Your task to perform on an android device: Open Youtube and go to "Your channel" Image 0: 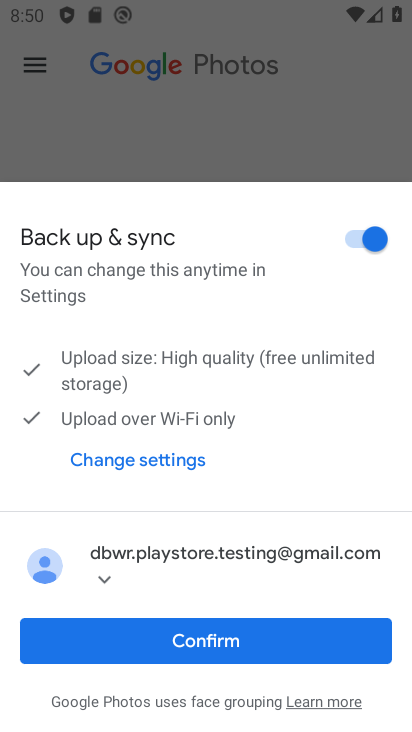
Step 0: press back button
Your task to perform on an android device: Open Youtube and go to "Your channel" Image 1: 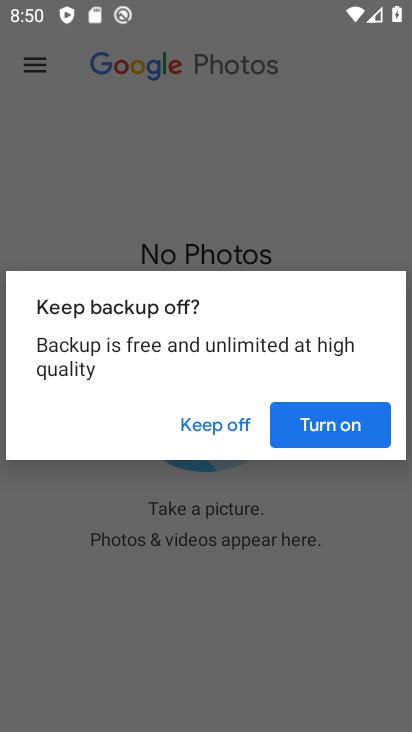
Step 1: press home button
Your task to perform on an android device: Open Youtube and go to "Your channel" Image 2: 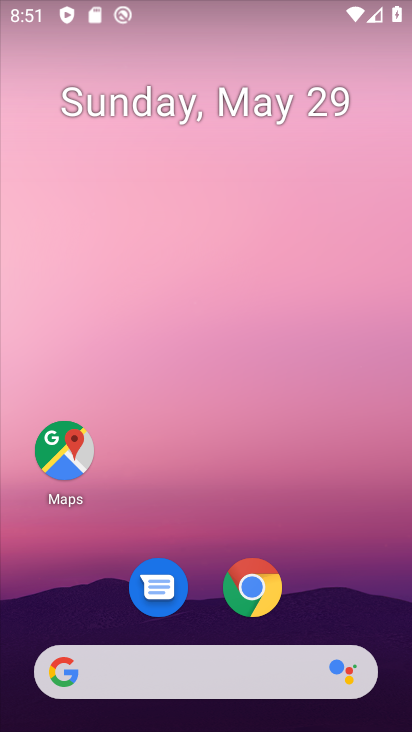
Step 2: drag from (226, 600) to (318, 21)
Your task to perform on an android device: Open Youtube and go to "Your channel" Image 3: 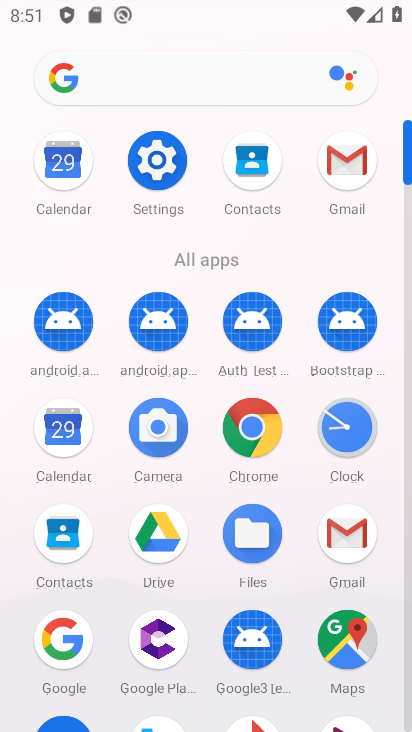
Step 3: drag from (230, 633) to (310, 52)
Your task to perform on an android device: Open Youtube and go to "Your channel" Image 4: 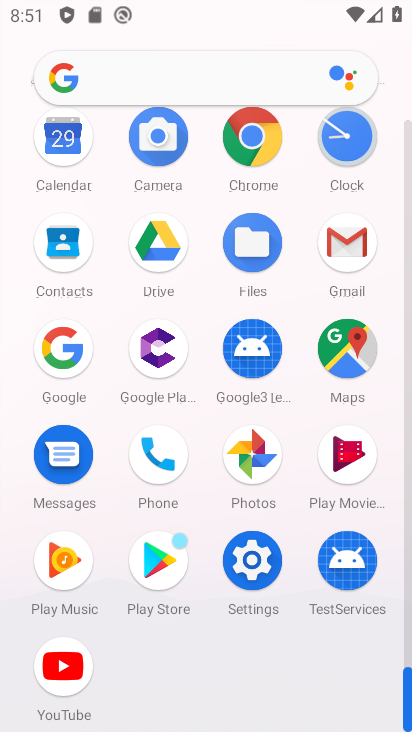
Step 4: click (74, 668)
Your task to perform on an android device: Open Youtube and go to "Your channel" Image 5: 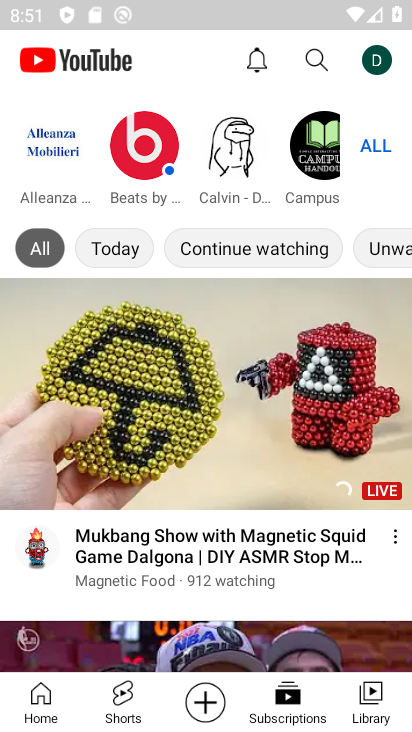
Step 5: click (384, 60)
Your task to perform on an android device: Open Youtube and go to "Your channel" Image 6: 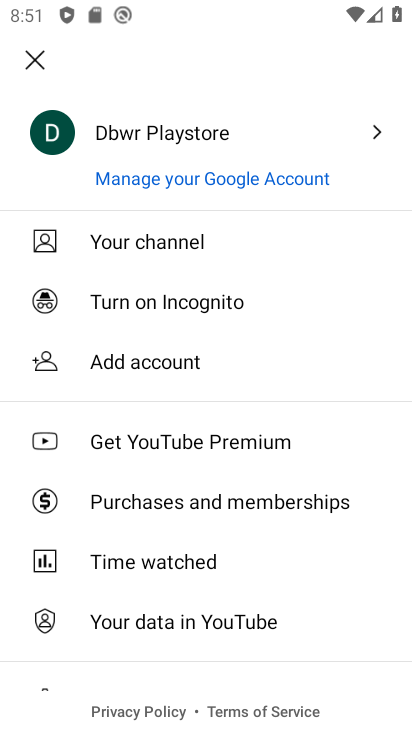
Step 6: click (105, 241)
Your task to perform on an android device: Open Youtube and go to "Your channel" Image 7: 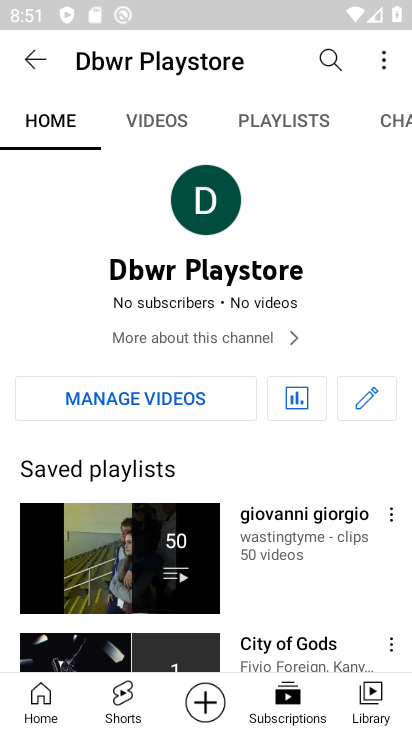
Step 7: task complete